Your task to perform on an android device: toggle location history Image 0: 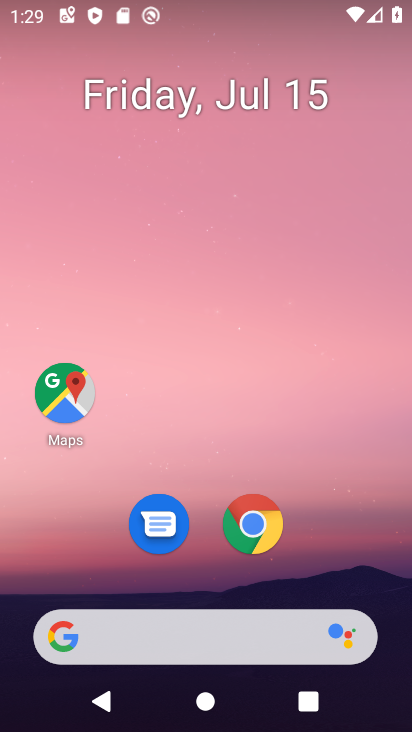
Step 0: press home button
Your task to perform on an android device: toggle location history Image 1: 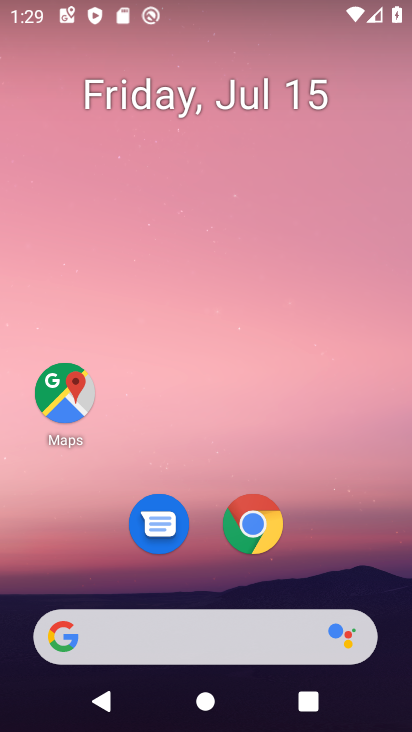
Step 1: click (59, 393)
Your task to perform on an android device: toggle location history Image 2: 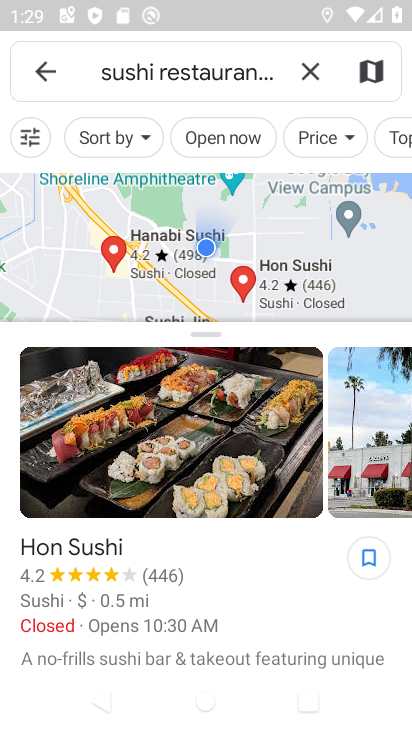
Step 2: click (47, 65)
Your task to perform on an android device: toggle location history Image 3: 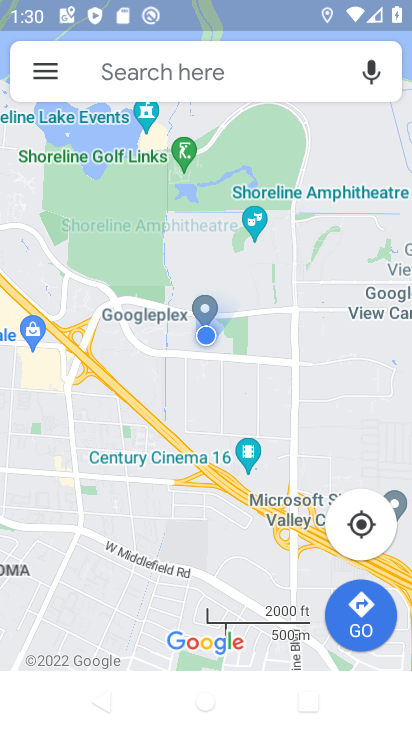
Step 3: click (47, 72)
Your task to perform on an android device: toggle location history Image 4: 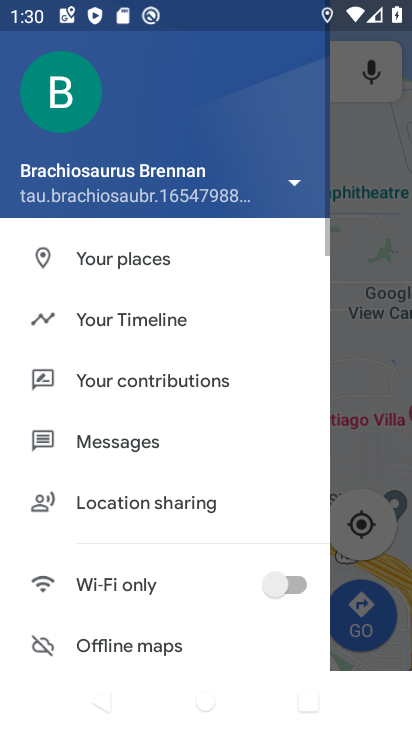
Step 4: click (146, 317)
Your task to perform on an android device: toggle location history Image 5: 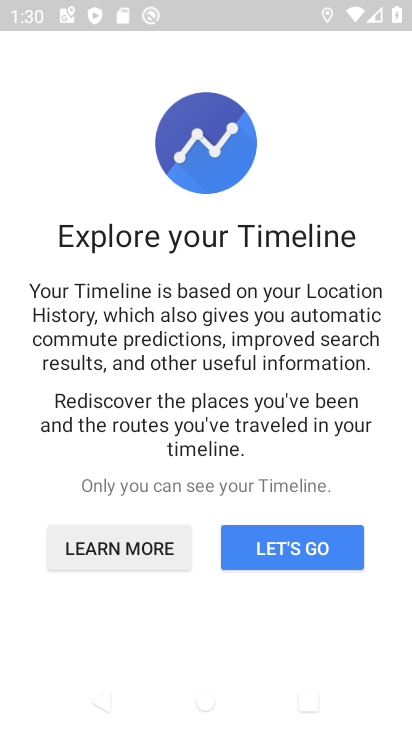
Step 5: click (298, 552)
Your task to perform on an android device: toggle location history Image 6: 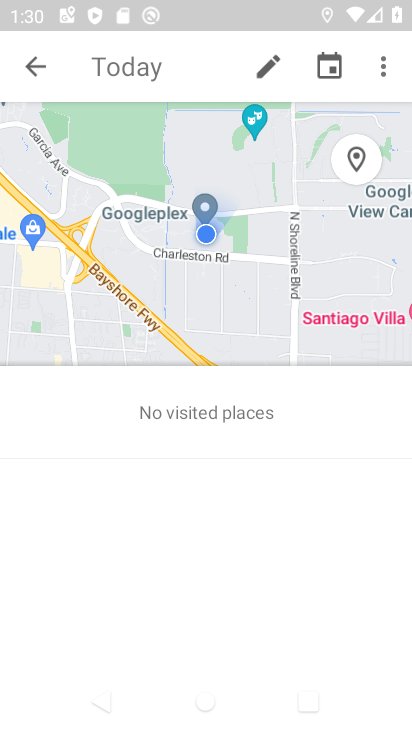
Step 6: click (380, 65)
Your task to perform on an android device: toggle location history Image 7: 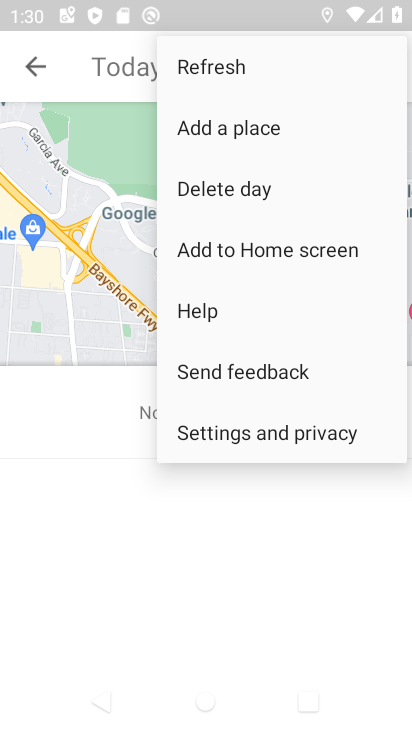
Step 7: click (237, 435)
Your task to perform on an android device: toggle location history Image 8: 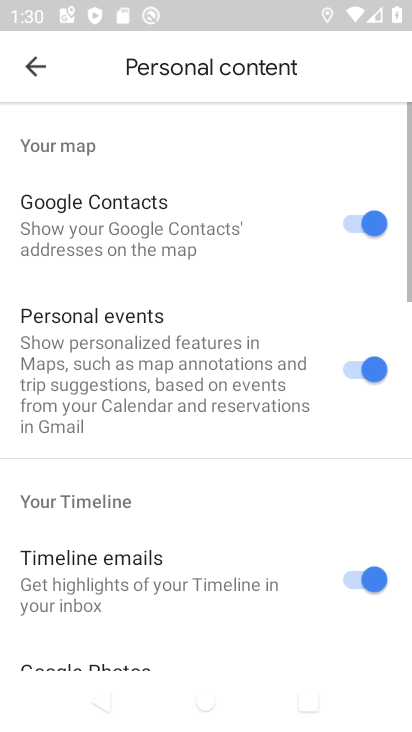
Step 8: drag from (201, 573) to (339, 66)
Your task to perform on an android device: toggle location history Image 9: 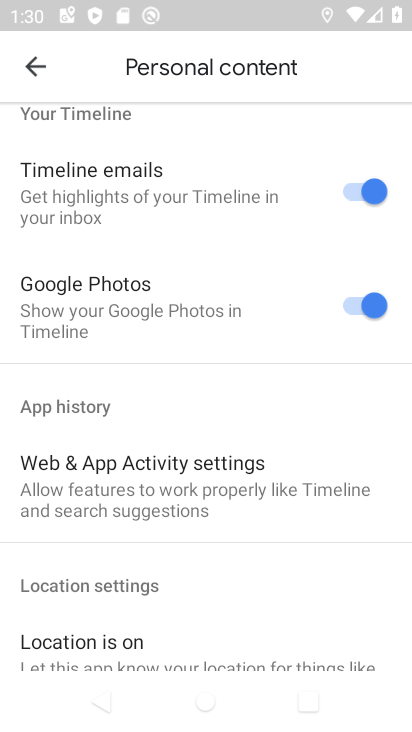
Step 9: drag from (201, 590) to (294, 142)
Your task to perform on an android device: toggle location history Image 10: 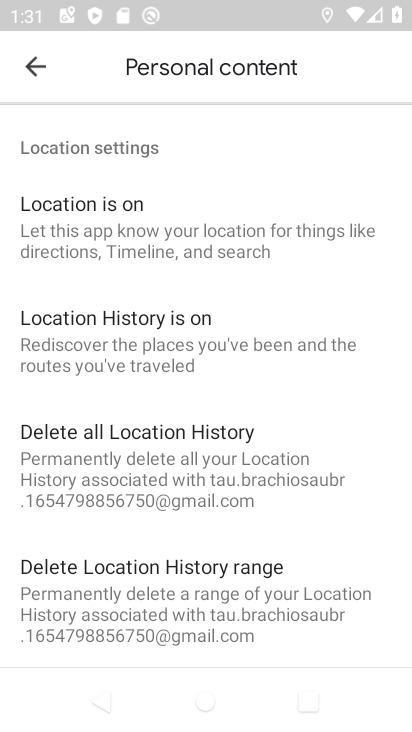
Step 10: click (172, 340)
Your task to perform on an android device: toggle location history Image 11: 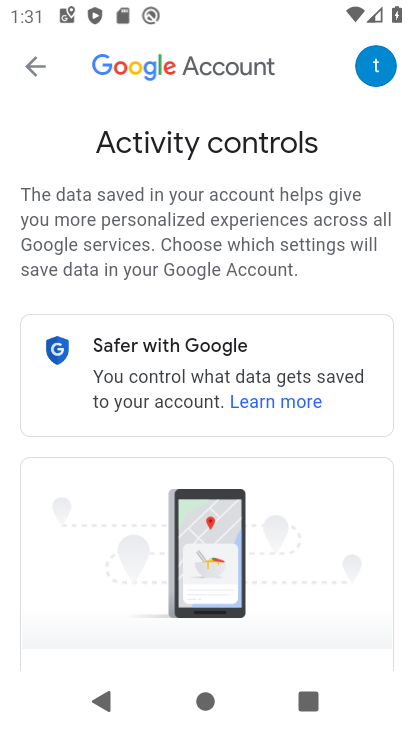
Step 11: drag from (108, 565) to (257, 88)
Your task to perform on an android device: toggle location history Image 12: 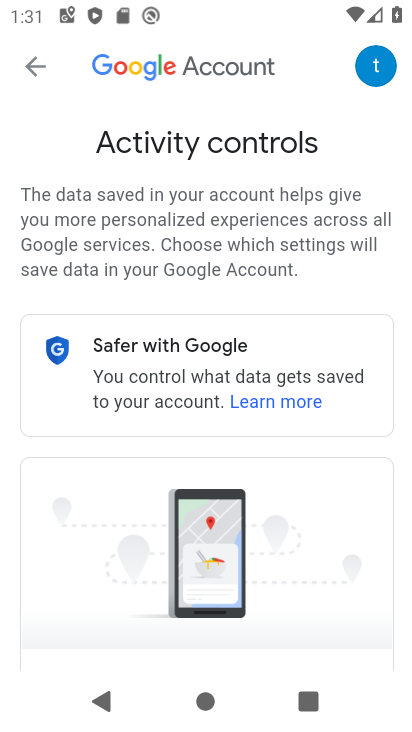
Step 12: drag from (292, 540) to (366, 52)
Your task to perform on an android device: toggle location history Image 13: 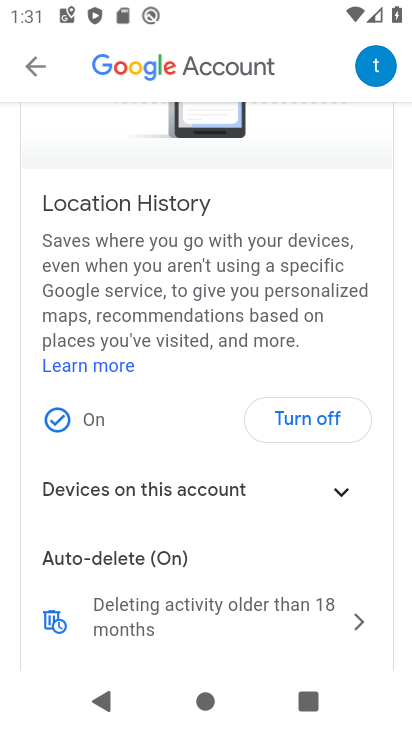
Step 13: click (324, 418)
Your task to perform on an android device: toggle location history Image 14: 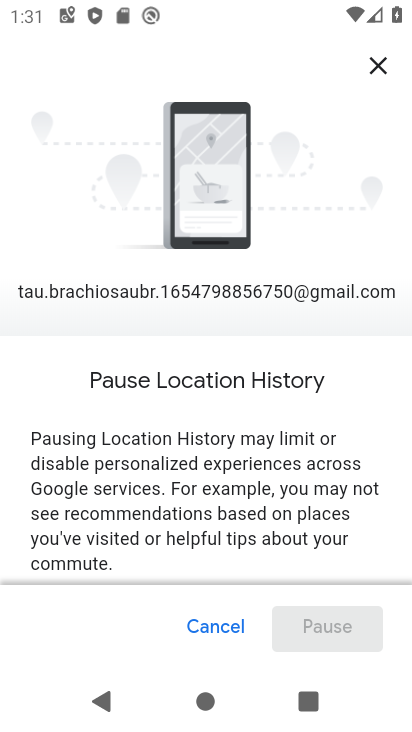
Step 14: drag from (287, 449) to (364, 78)
Your task to perform on an android device: toggle location history Image 15: 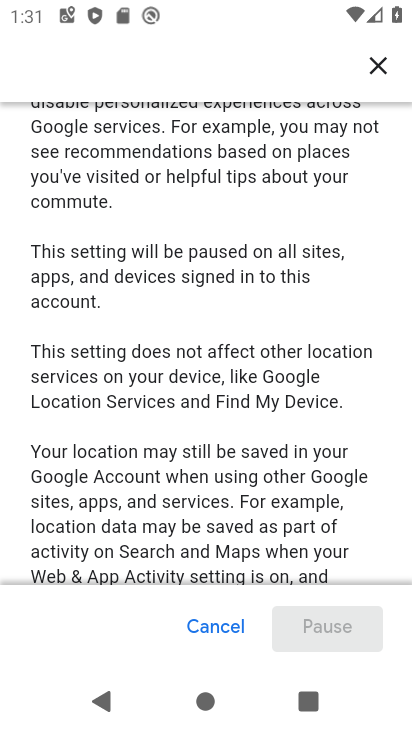
Step 15: drag from (259, 518) to (353, 78)
Your task to perform on an android device: toggle location history Image 16: 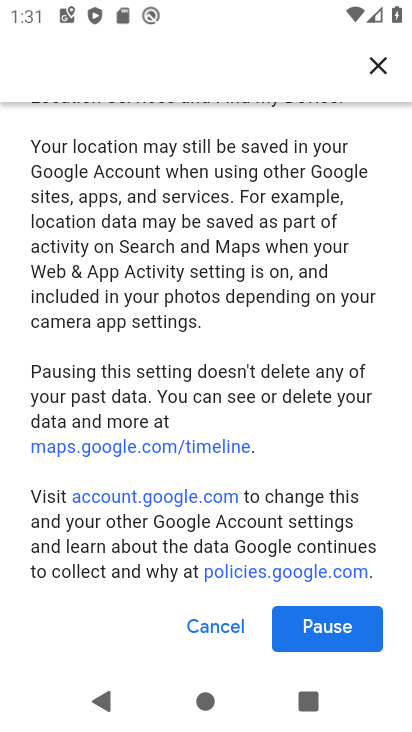
Step 16: drag from (310, 454) to (367, 48)
Your task to perform on an android device: toggle location history Image 17: 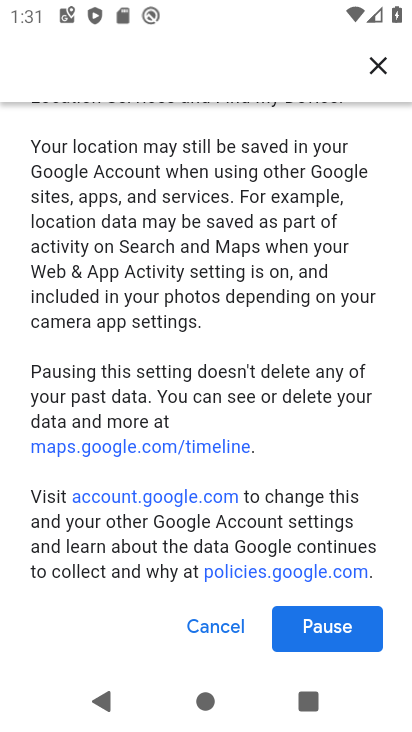
Step 17: click (327, 621)
Your task to perform on an android device: toggle location history Image 18: 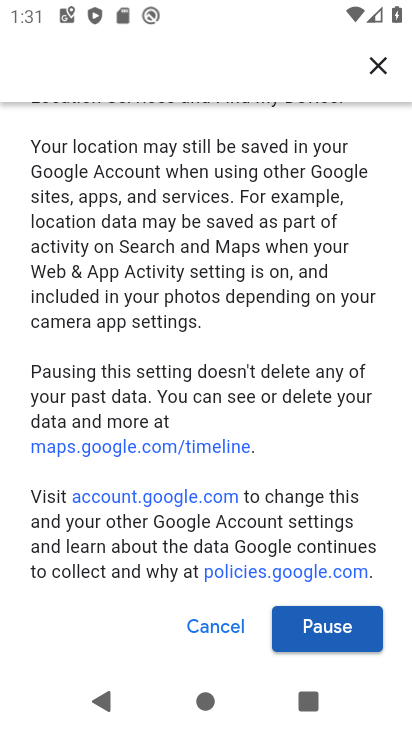
Step 18: click (331, 625)
Your task to perform on an android device: toggle location history Image 19: 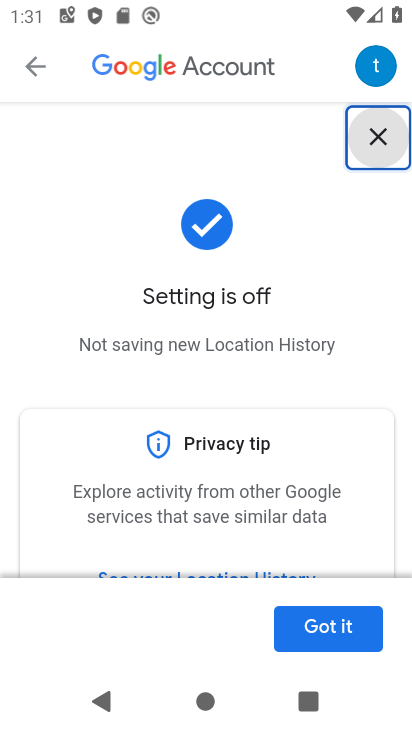
Step 19: click (329, 628)
Your task to perform on an android device: toggle location history Image 20: 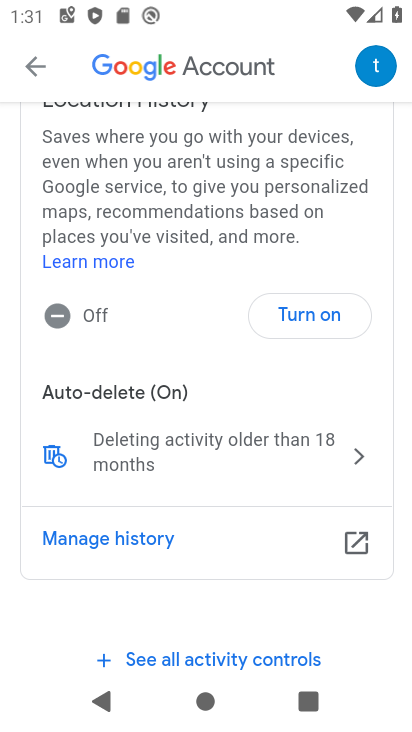
Step 20: task complete